Your task to perform on an android device: turn notification dots on Image 0: 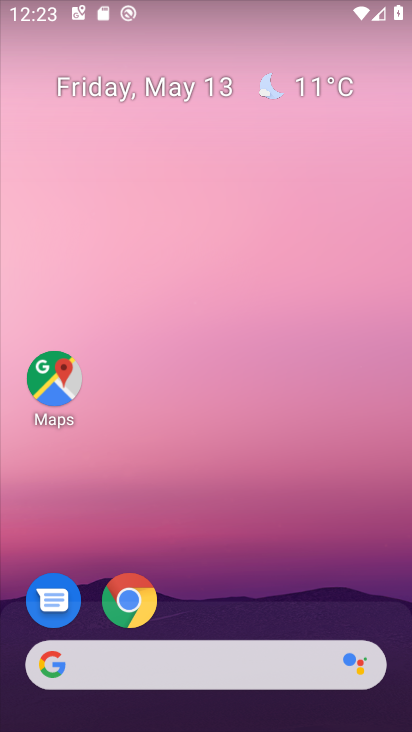
Step 0: drag from (181, 529) to (181, 27)
Your task to perform on an android device: turn notification dots on Image 1: 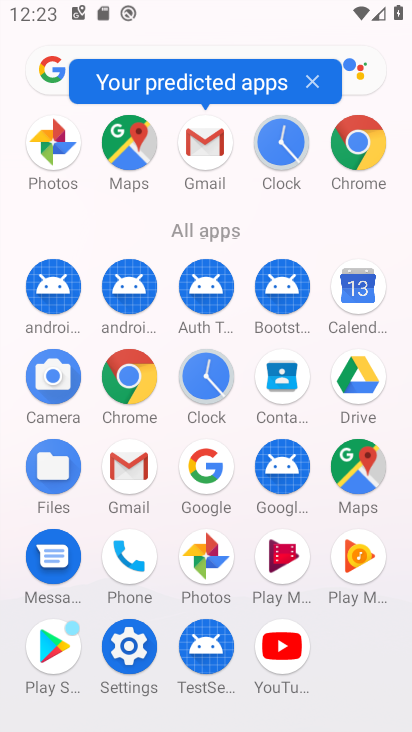
Step 1: click (128, 660)
Your task to perform on an android device: turn notification dots on Image 2: 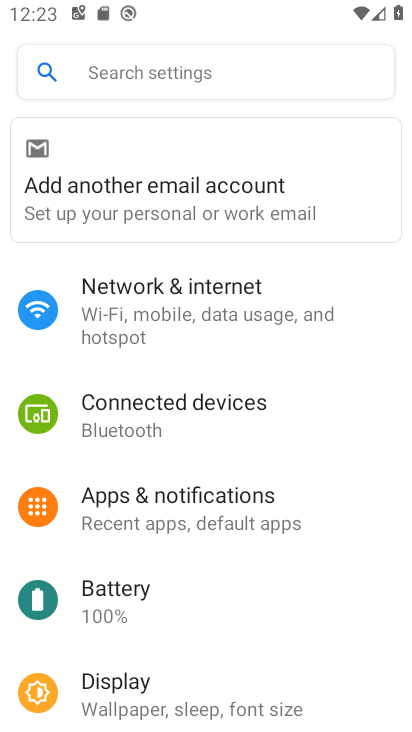
Step 2: click (170, 526)
Your task to perform on an android device: turn notification dots on Image 3: 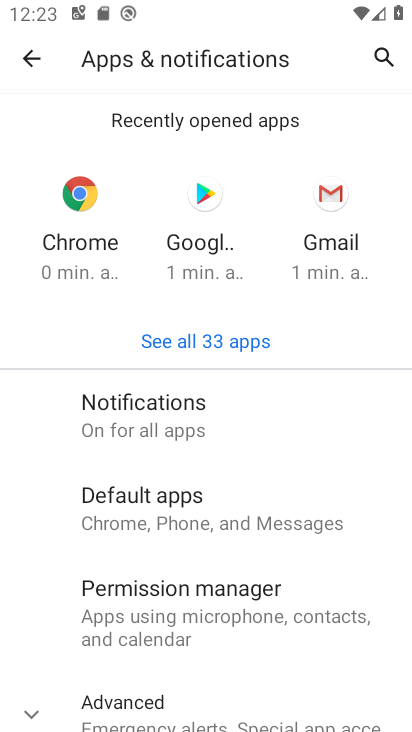
Step 3: click (198, 398)
Your task to perform on an android device: turn notification dots on Image 4: 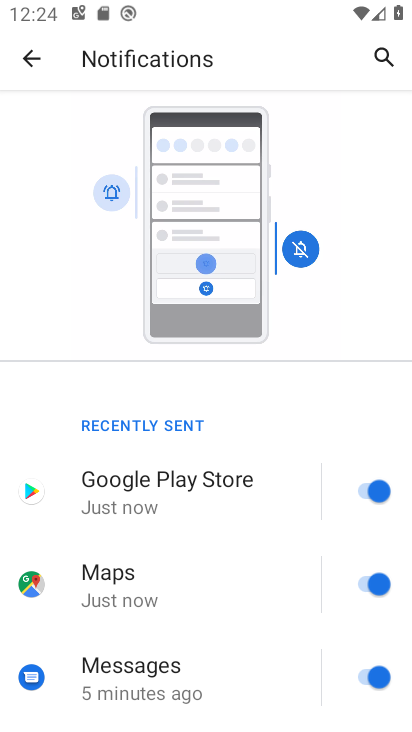
Step 4: drag from (203, 690) to (211, 245)
Your task to perform on an android device: turn notification dots on Image 5: 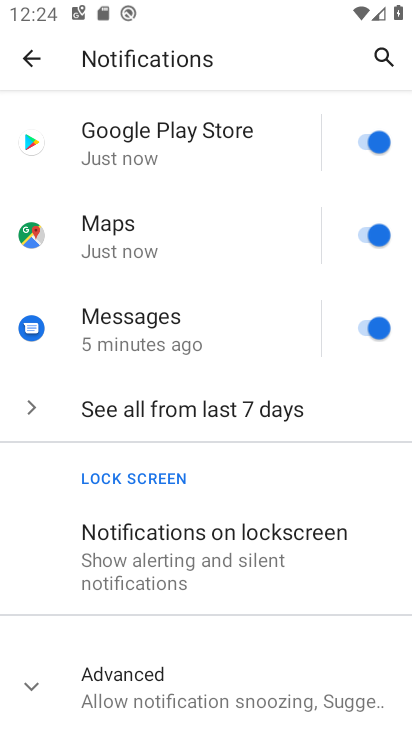
Step 5: click (167, 676)
Your task to perform on an android device: turn notification dots on Image 6: 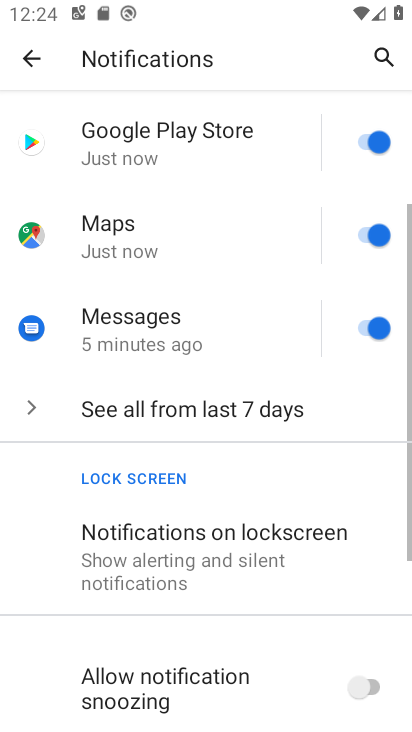
Step 6: task complete